Your task to perform on an android device: toggle javascript in the chrome app Image 0: 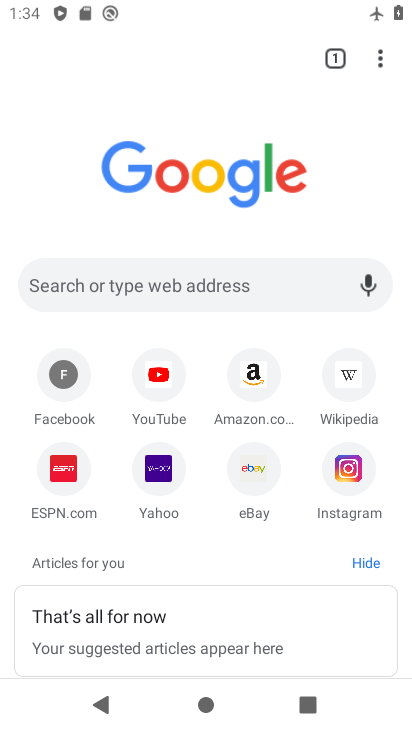
Step 0: press home button
Your task to perform on an android device: toggle javascript in the chrome app Image 1: 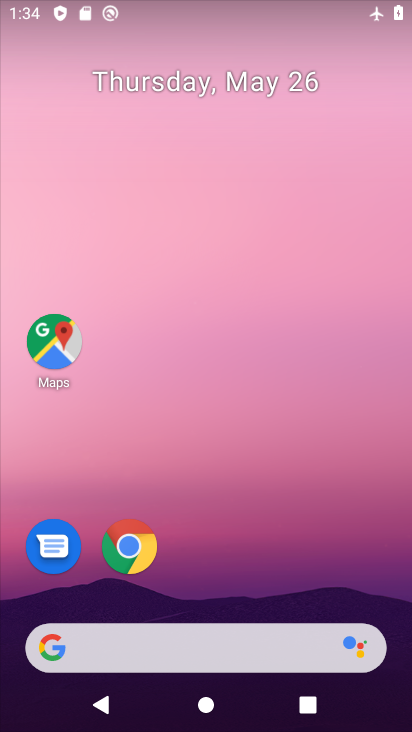
Step 1: click (130, 547)
Your task to perform on an android device: toggle javascript in the chrome app Image 2: 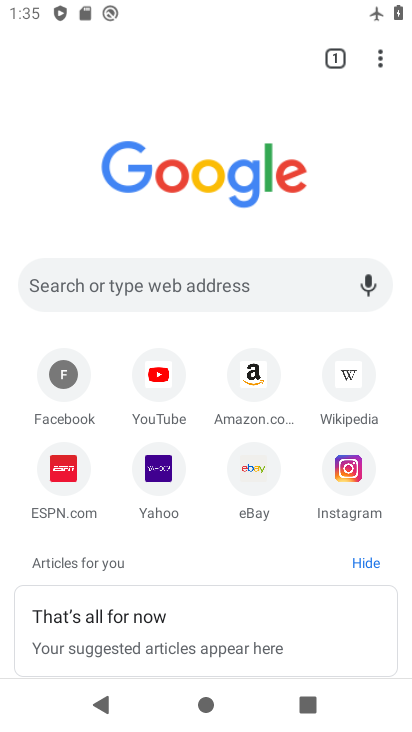
Step 2: click (368, 60)
Your task to perform on an android device: toggle javascript in the chrome app Image 3: 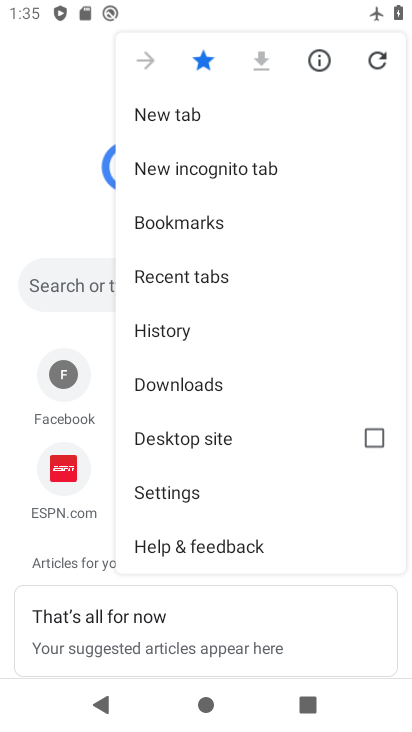
Step 3: click (149, 507)
Your task to perform on an android device: toggle javascript in the chrome app Image 4: 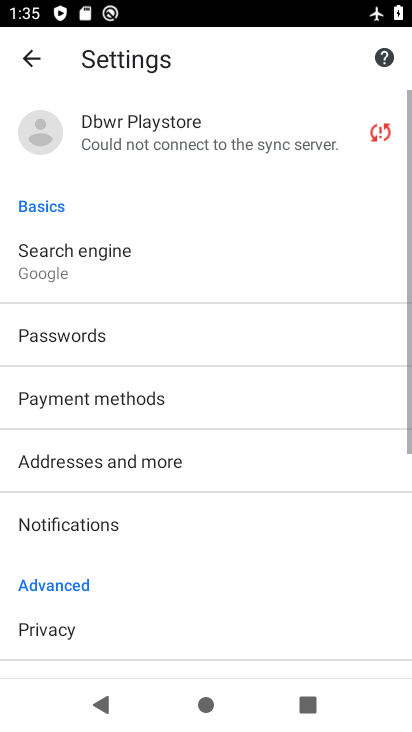
Step 4: drag from (166, 554) to (320, 125)
Your task to perform on an android device: toggle javascript in the chrome app Image 5: 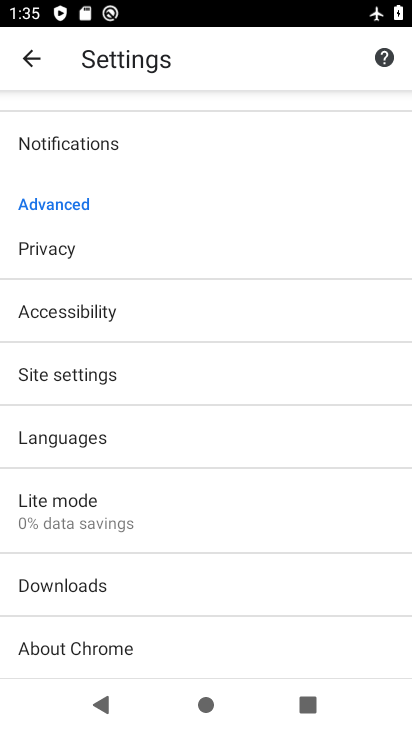
Step 5: click (69, 380)
Your task to perform on an android device: toggle javascript in the chrome app Image 6: 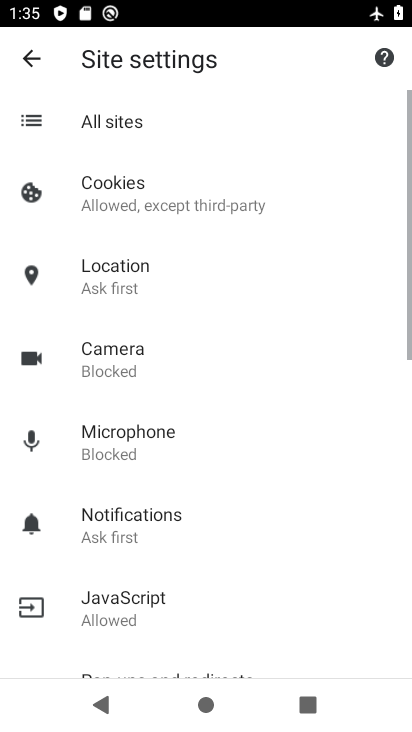
Step 6: drag from (217, 536) to (257, 317)
Your task to perform on an android device: toggle javascript in the chrome app Image 7: 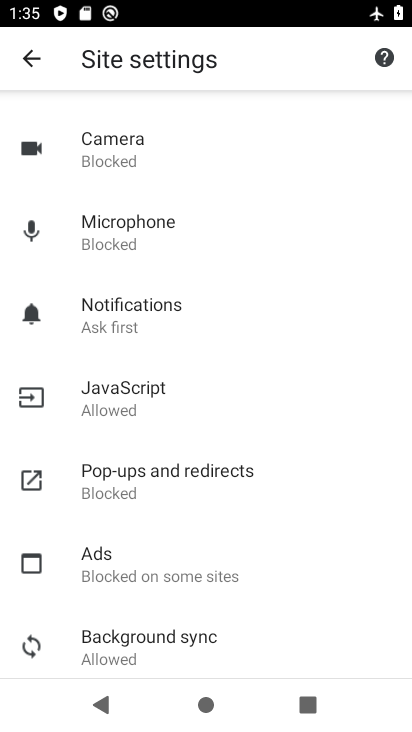
Step 7: click (137, 401)
Your task to perform on an android device: toggle javascript in the chrome app Image 8: 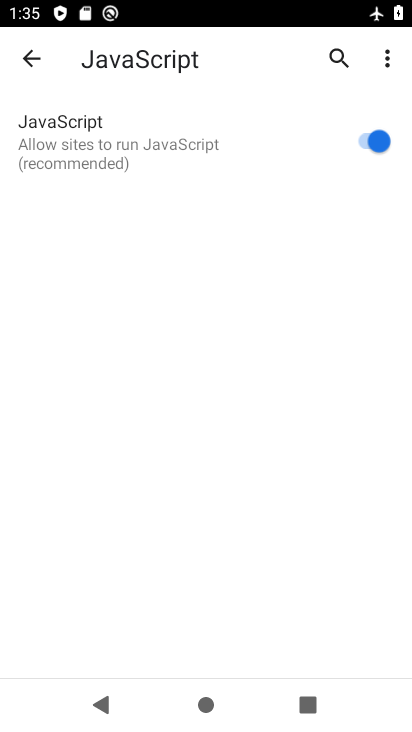
Step 8: click (373, 144)
Your task to perform on an android device: toggle javascript in the chrome app Image 9: 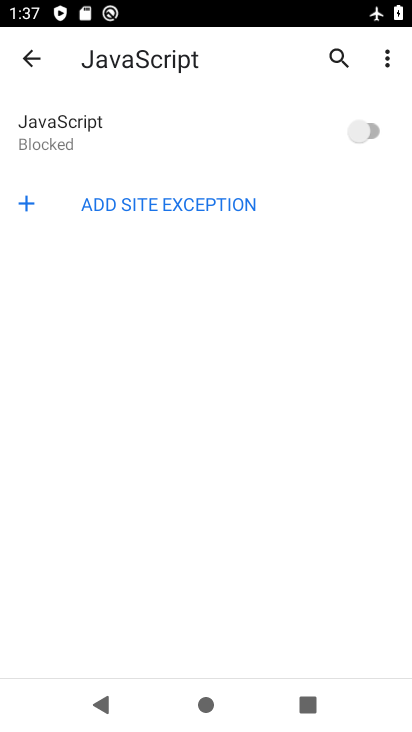
Step 9: task complete